Your task to perform on an android device: toggle airplane mode Image 0: 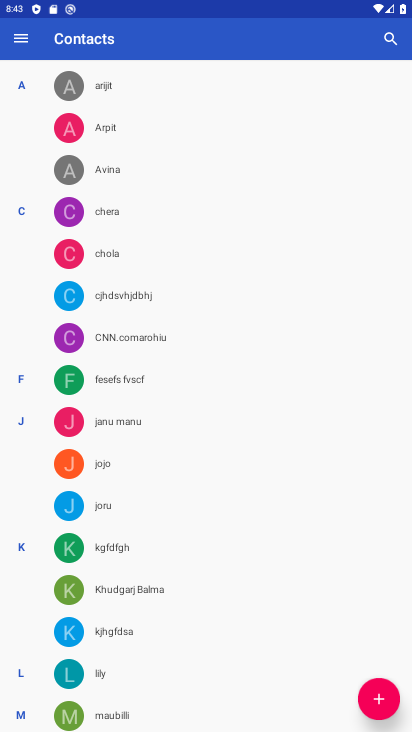
Step 0: press home button
Your task to perform on an android device: toggle airplane mode Image 1: 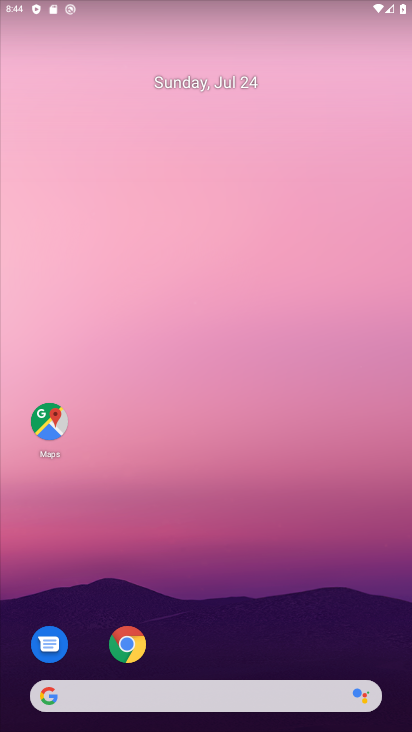
Step 1: drag from (293, 10) to (363, 512)
Your task to perform on an android device: toggle airplane mode Image 2: 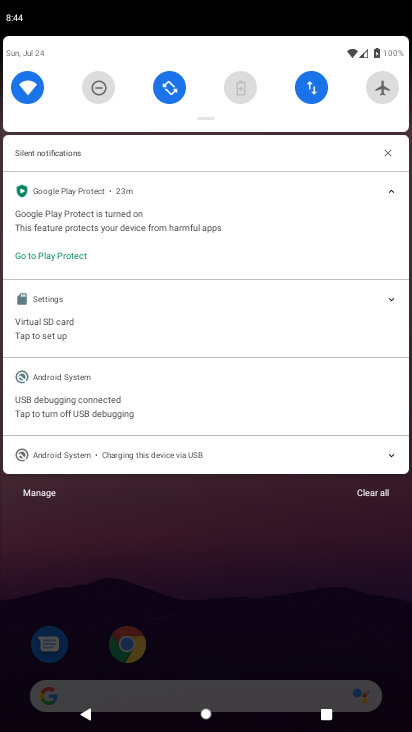
Step 2: click (380, 81)
Your task to perform on an android device: toggle airplane mode Image 3: 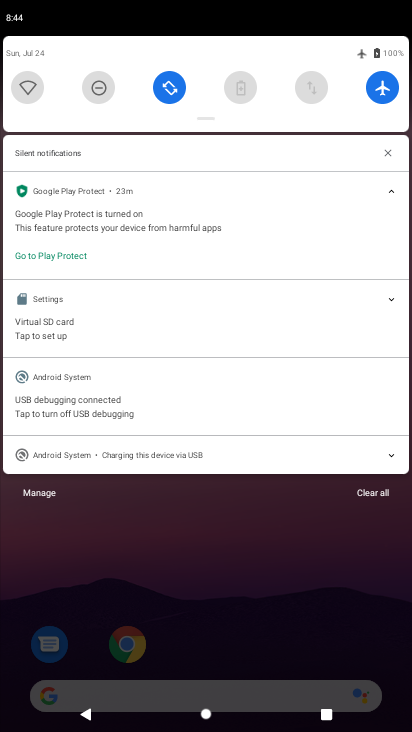
Step 3: task complete